Your task to perform on an android device: Go to Maps Image 0: 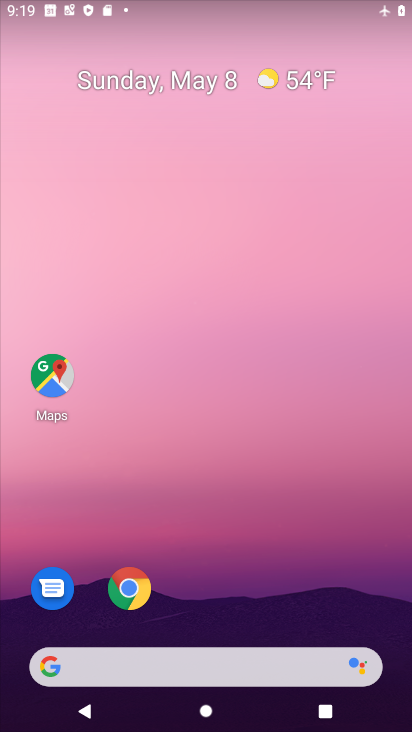
Step 0: click (34, 392)
Your task to perform on an android device: Go to Maps Image 1: 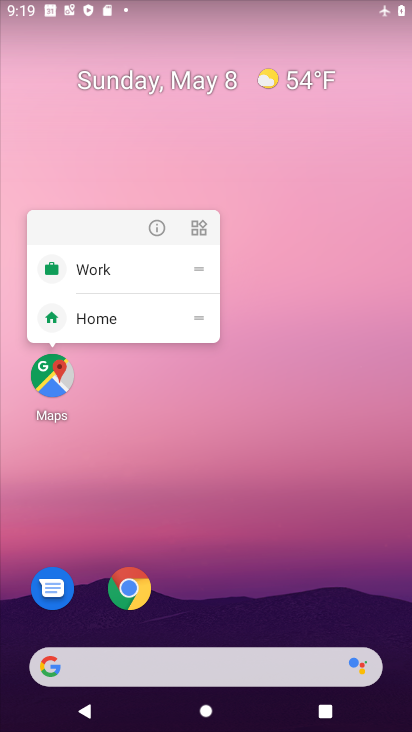
Step 1: click (156, 225)
Your task to perform on an android device: Go to Maps Image 2: 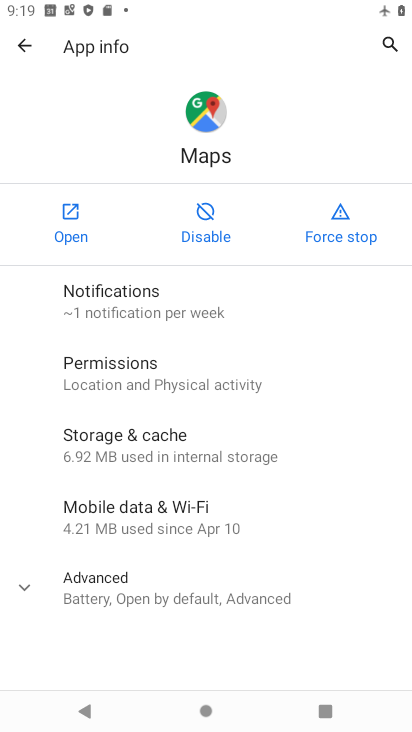
Step 2: click (85, 219)
Your task to perform on an android device: Go to Maps Image 3: 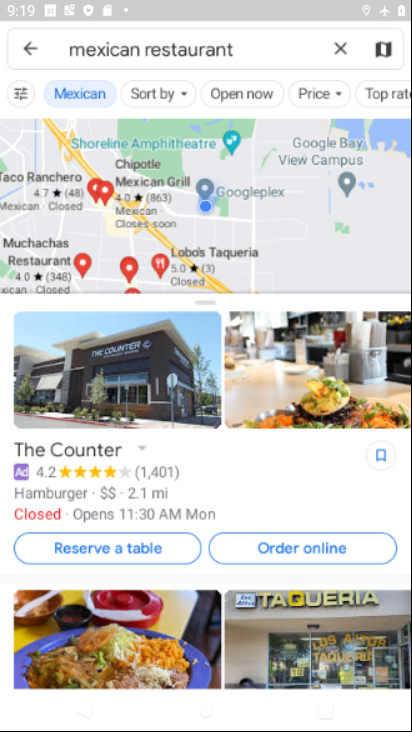
Step 3: task complete